Your task to perform on an android device: turn on sleep mode Image 0: 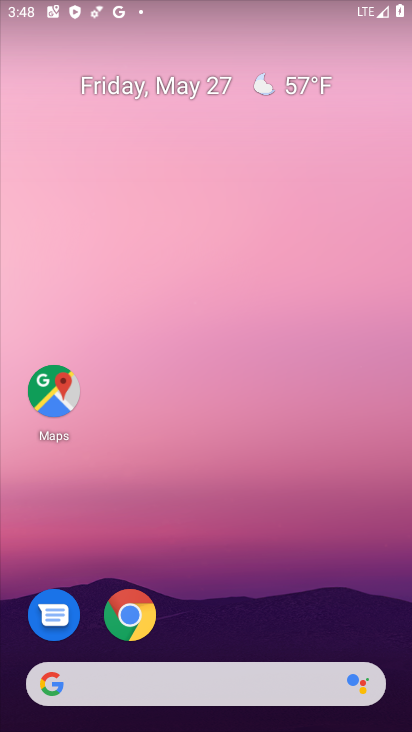
Step 0: drag from (201, 616) to (251, 3)
Your task to perform on an android device: turn on sleep mode Image 1: 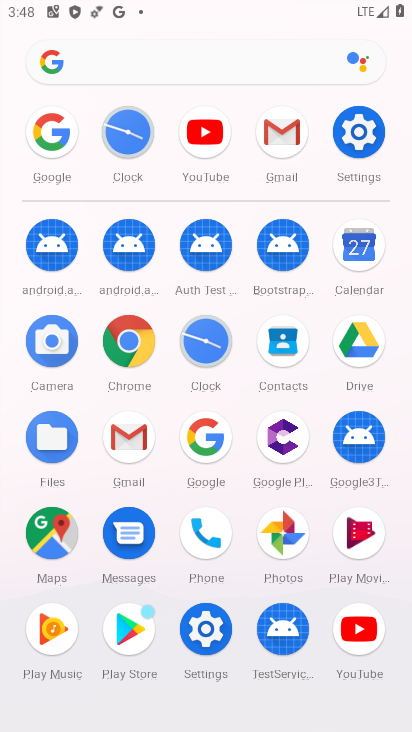
Step 1: task complete